Your task to perform on an android device: change the clock style Image 0: 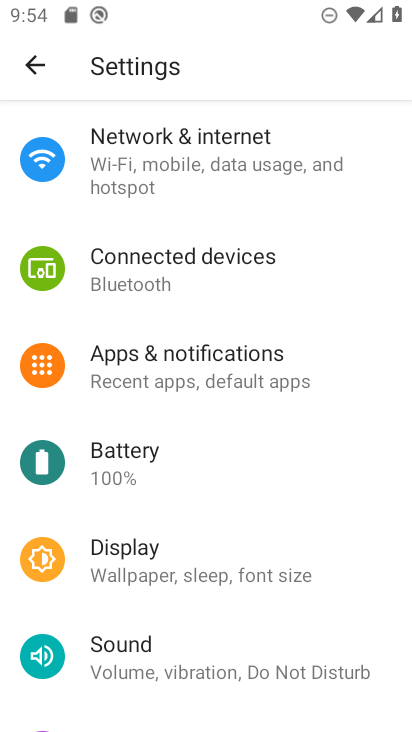
Step 0: press home button
Your task to perform on an android device: change the clock style Image 1: 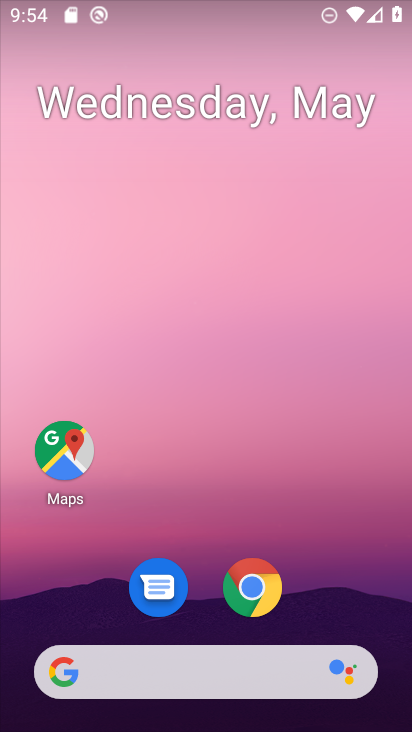
Step 1: drag from (205, 720) to (199, 54)
Your task to perform on an android device: change the clock style Image 2: 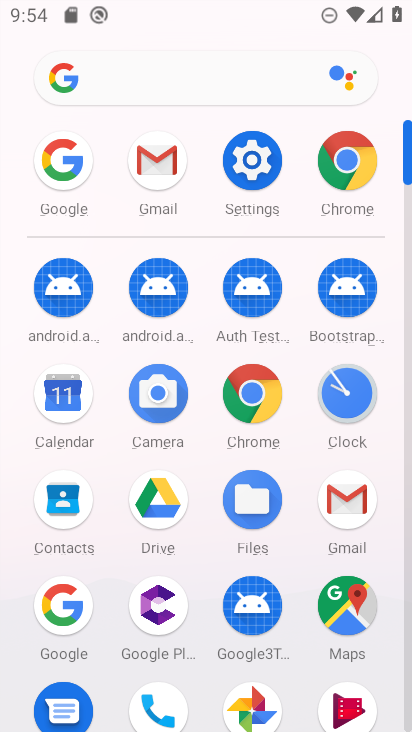
Step 2: click (352, 393)
Your task to perform on an android device: change the clock style Image 3: 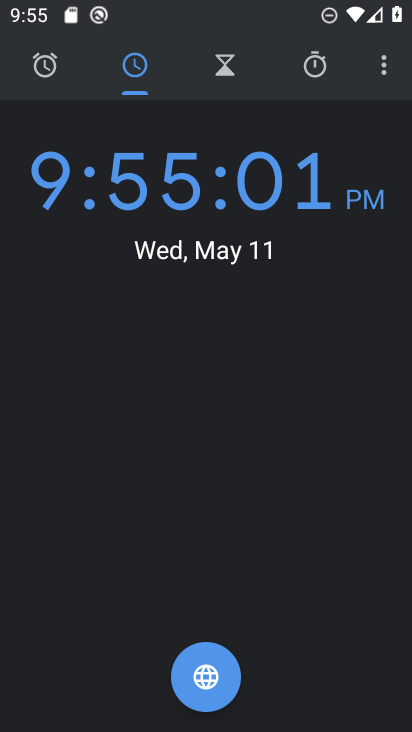
Step 3: click (386, 69)
Your task to perform on an android device: change the clock style Image 4: 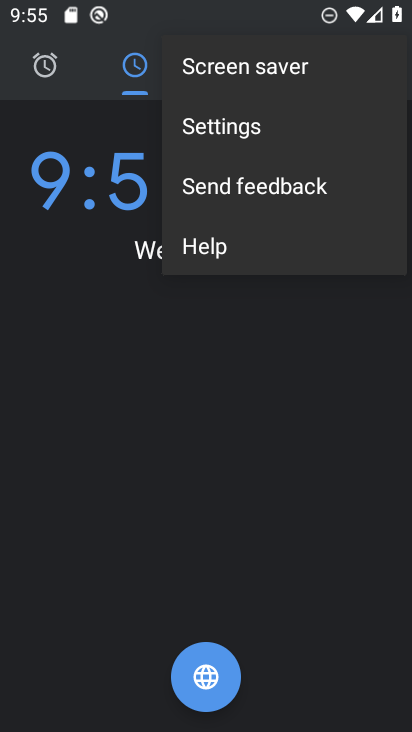
Step 4: click (211, 124)
Your task to perform on an android device: change the clock style Image 5: 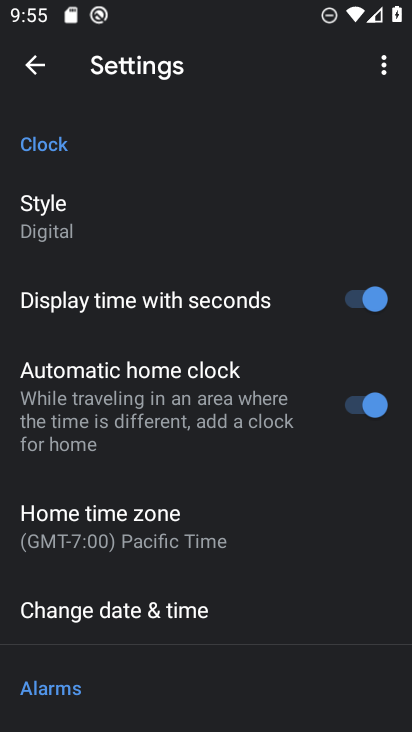
Step 5: click (30, 238)
Your task to perform on an android device: change the clock style Image 6: 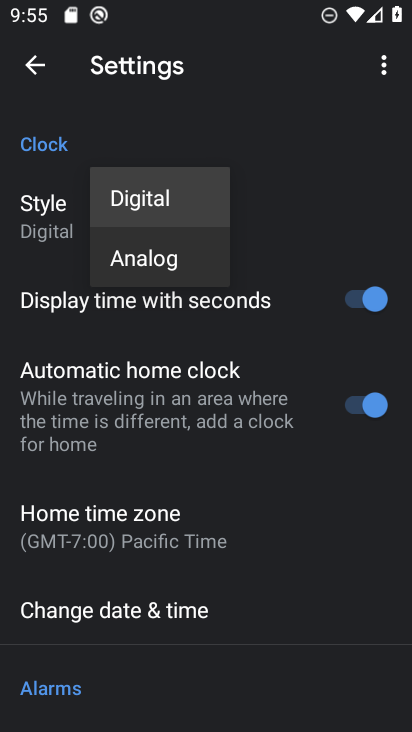
Step 6: click (128, 256)
Your task to perform on an android device: change the clock style Image 7: 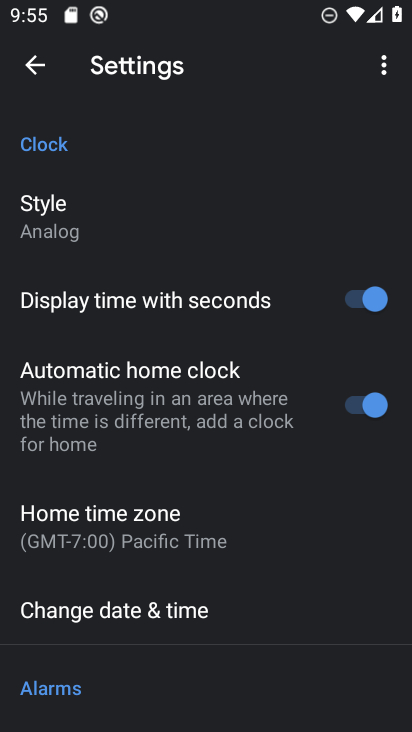
Step 7: task complete